Your task to perform on an android device: Go to wifi settings Image 0: 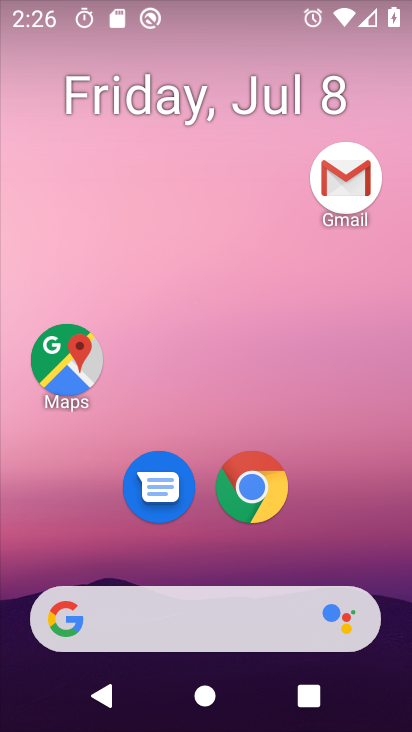
Step 0: drag from (377, 522) to (391, 179)
Your task to perform on an android device: Go to wifi settings Image 1: 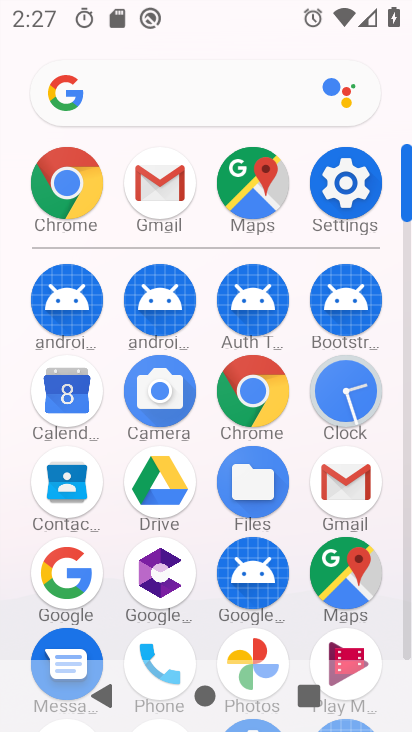
Step 1: click (363, 212)
Your task to perform on an android device: Go to wifi settings Image 2: 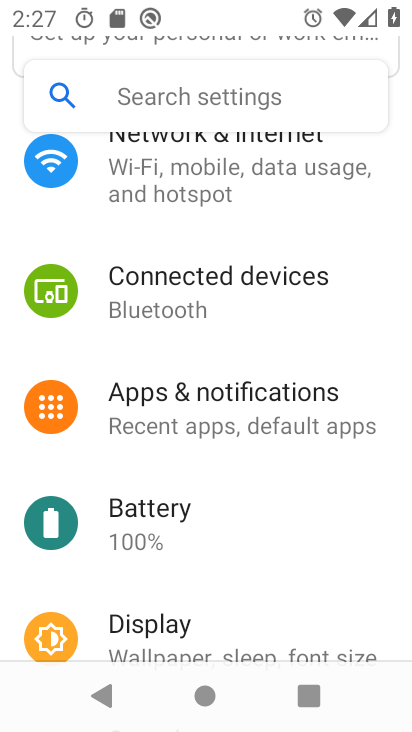
Step 2: drag from (357, 300) to (366, 477)
Your task to perform on an android device: Go to wifi settings Image 3: 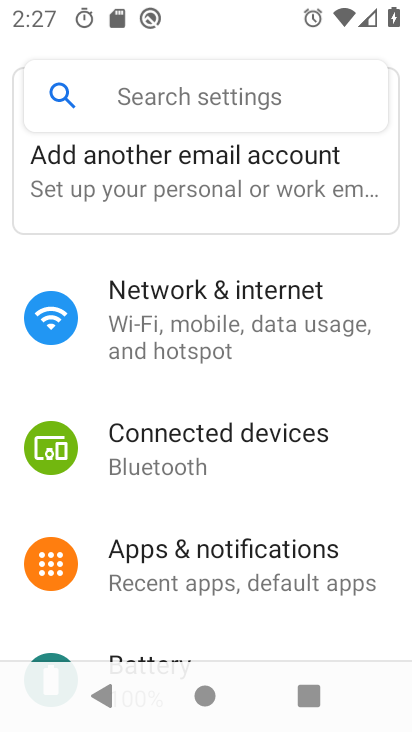
Step 3: drag from (379, 255) to (387, 474)
Your task to perform on an android device: Go to wifi settings Image 4: 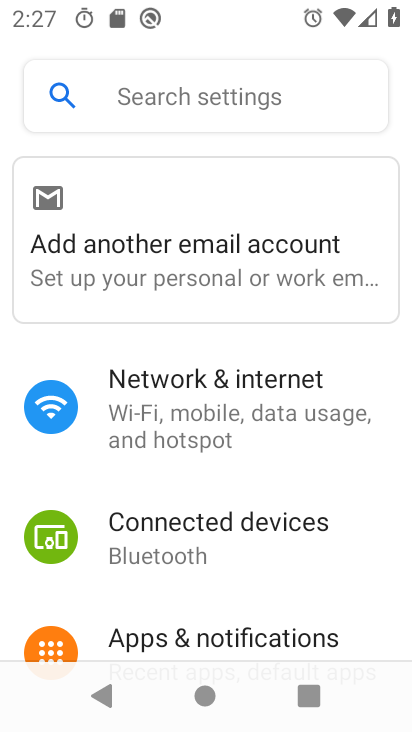
Step 4: click (266, 403)
Your task to perform on an android device: Go to wifi settings Image 5: 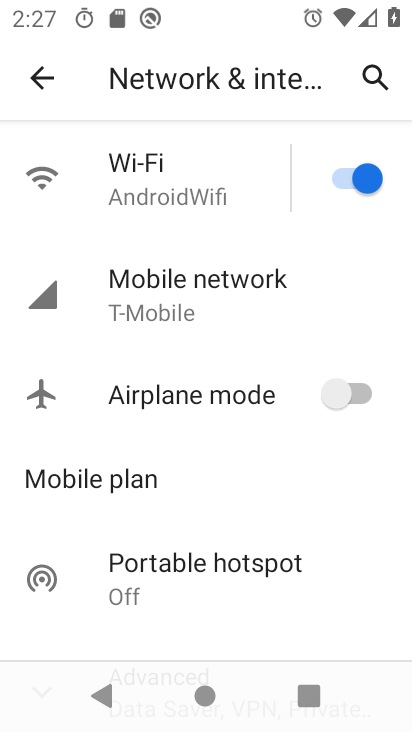
Step 5: drag from (308, 504) to (290, 331)
Your task to perform on an android device: Go to wifi settings Image 6: 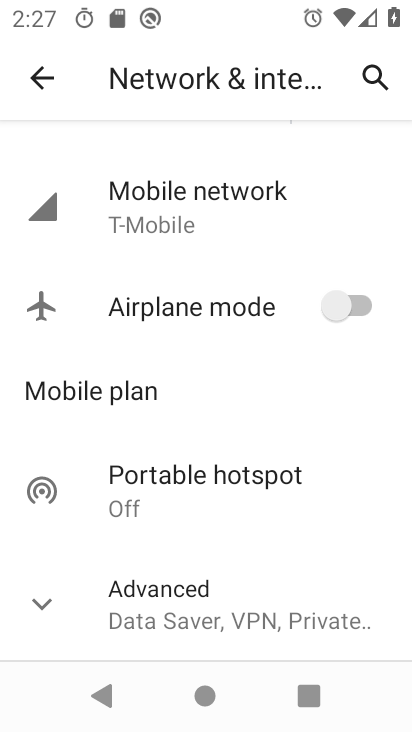
Step 6: drag from (284, 268) to (320, 434)
Your task to perform on an android device: Go to wifi settings Image 7: 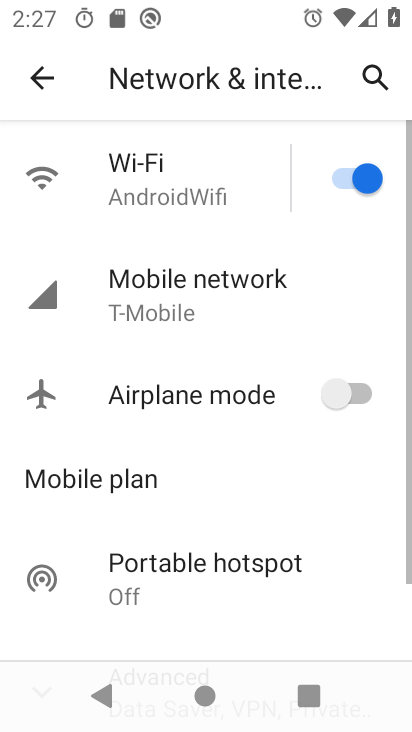
Step 7: click (196, 179)
Your task to perform on an android device: Go to wifi settings Image 8: 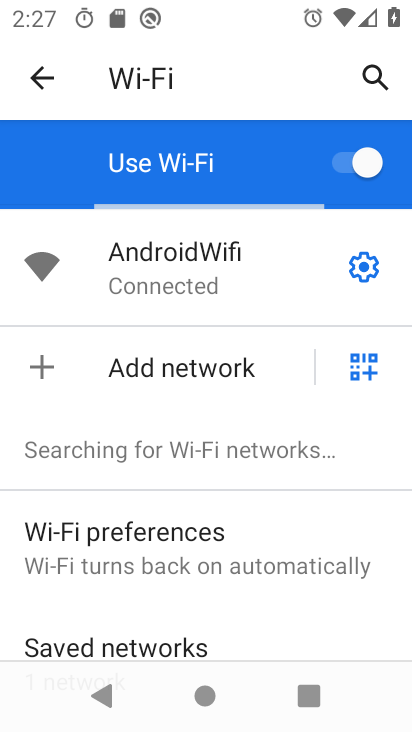
Step 8: task complete